Your task to perform on an android device: turn vacation reply on in the gmail app Image 0: 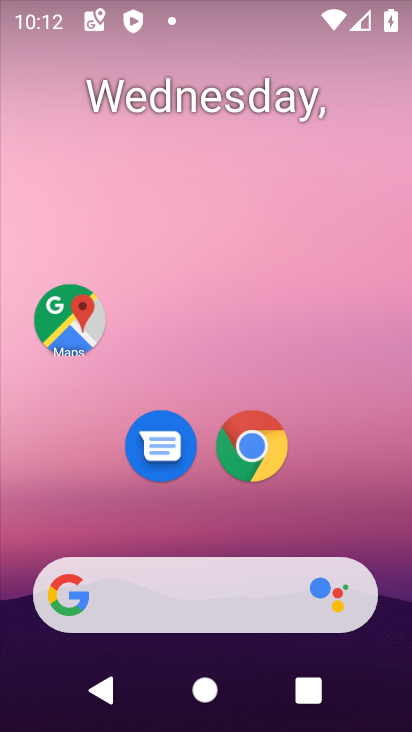
Step 0: drag from (262, 524) to (266, 0)
Your task to perform on an android device: turn vacation reply on in the gmail app Image 1: 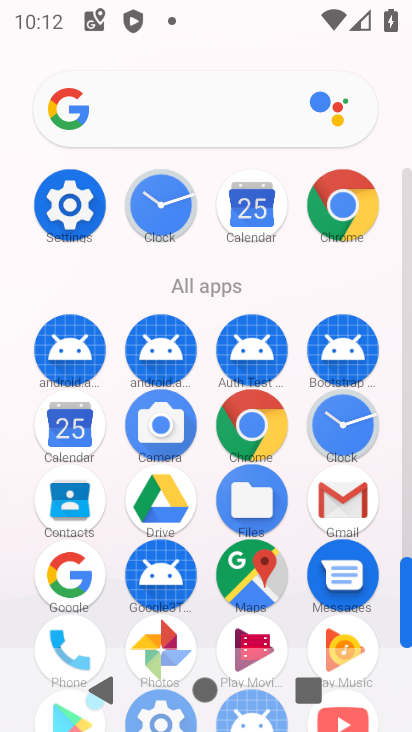
Step 1: click (340, 495)
Your task to perform on an android device: turn vacation reply on in the gmail app Image 2: 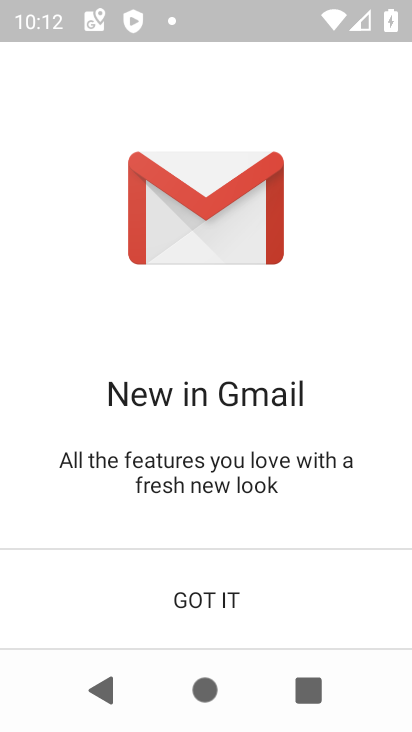
Step 2: click (172, 589)
Your task to perform on an android device: turn vacation reply on in the gmail app Image 3: 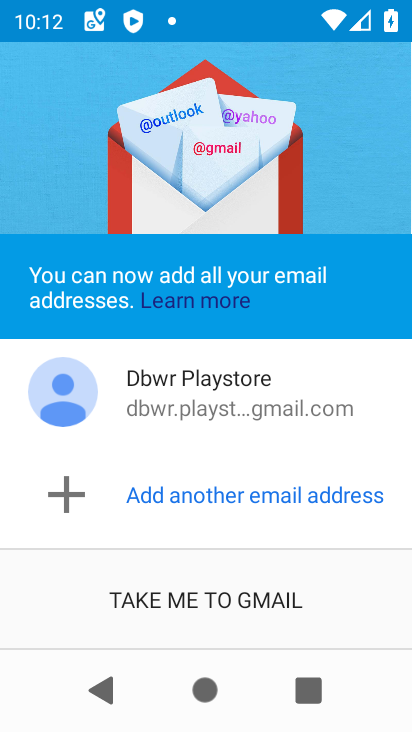
Step 3: click (182, 600)
Your task to perform on an android device: turn vacation reply on in the gmail app Image 4: 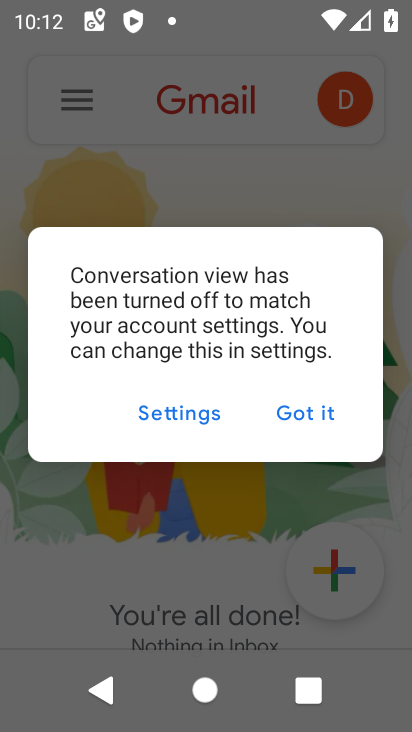
Step 4: click (301, 411)
Your task to perform on an android device: turn vacation reply on in the gmail app Image 5: 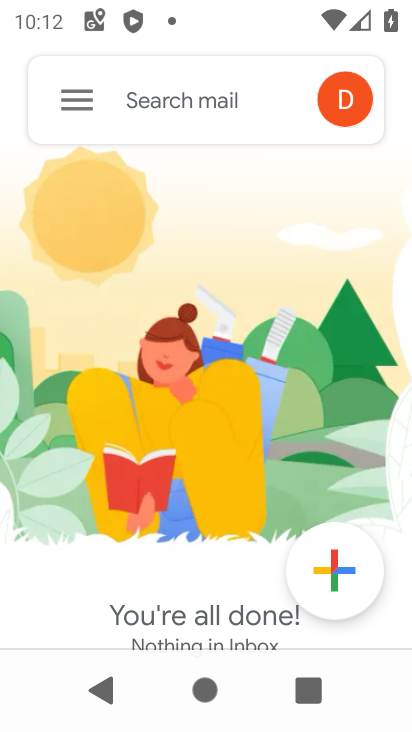
Step 5: click (65, 114)
Your task to perform on an android device: turn vacation reply on in the gmail app Image 6: 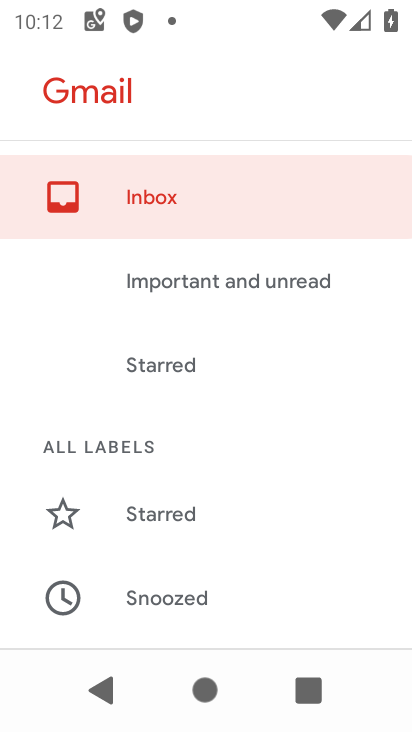
Step 6: drag from (214, 619) to (302, 288)
Your task to perform on an android device: turn vacation reply on in the gmail app Image 7: 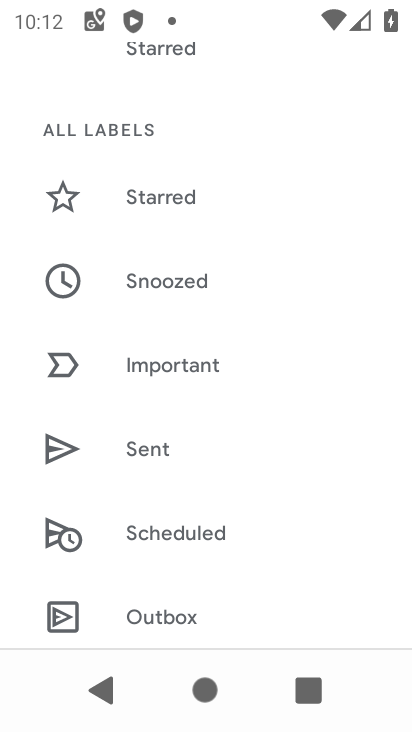
Step 7: drag from (202, 542) to (249, 300)
Your task to perform on an android device: turn vacation reply on in the gmail app Image 8: 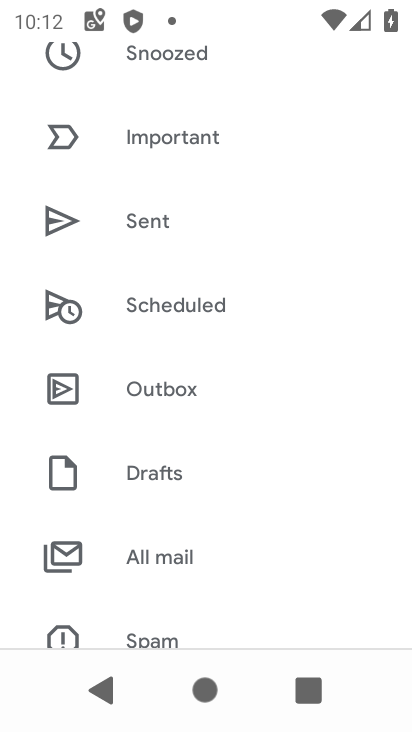
Step 8: drag from (211, 599) to (236, 203)
Your task to perform on an android device: turn vacation reply on in the gmail app Image 9: 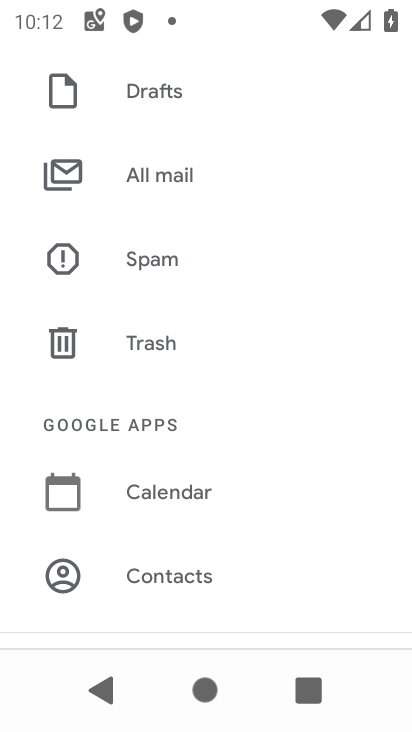
Step 9: drag from (180, 572) to (195, 169)
Your task to perform on an android device: turn vacation reply on in the gmail app Image 10: 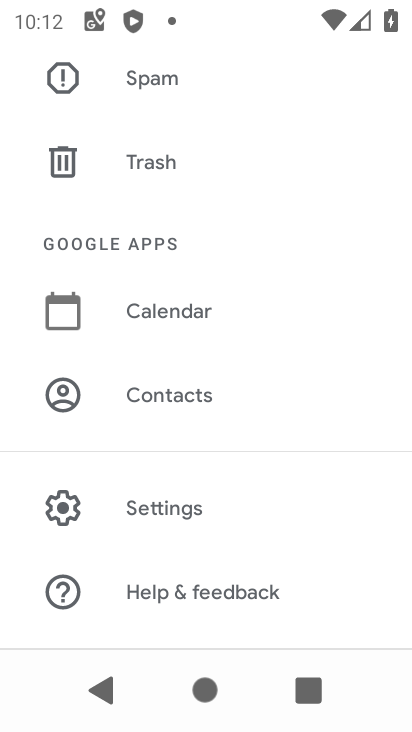
Step 10: click (160, 500)
Your task to perform on an android device: turn vacation reply on in the gmail app Image 11: 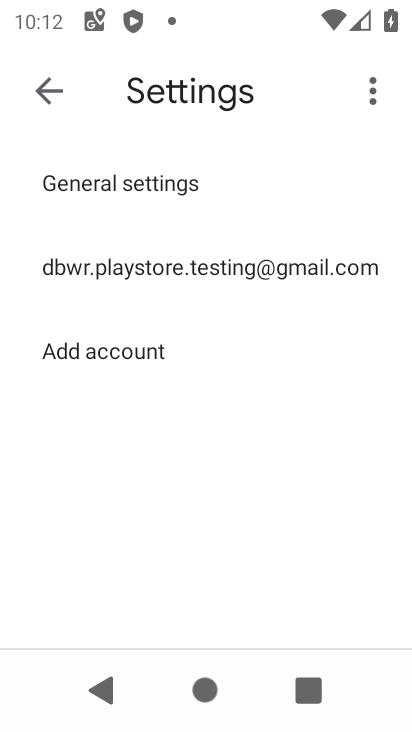
Step 11: click (196, 263)
Your task to perform on an android device: turn vacation reply on in the gmail app Image 12: 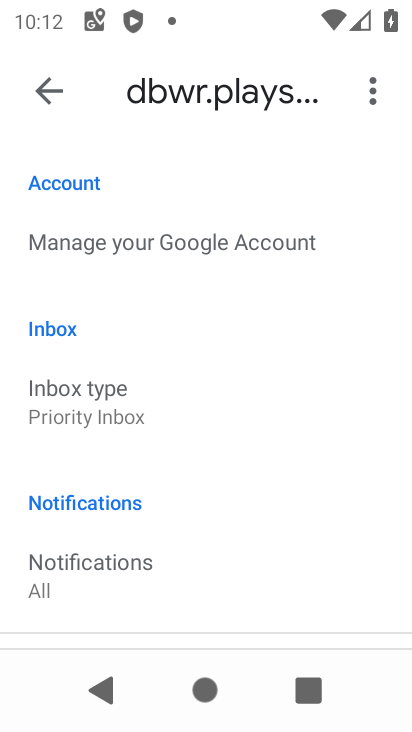
Step 12: drag from (163, 547) to (194, 207)
Your task to perform on an android device: turn vacation reply on in the gmail app Image 13: 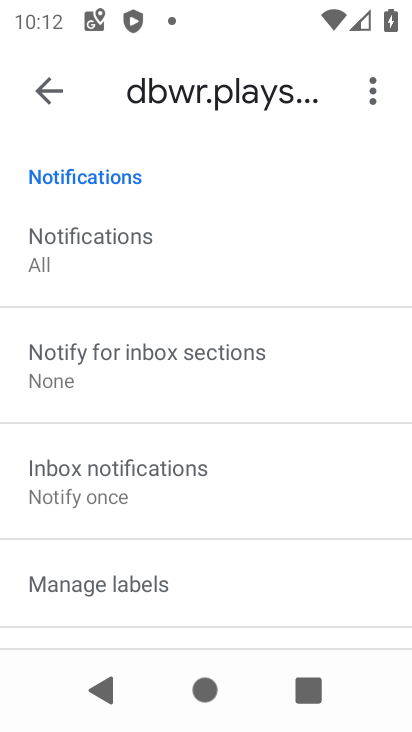
Step 13: drag from (273, 589) to (320, 201)
Your task to perform on an android device: turn vacation reply on in the gmail app Image 14: 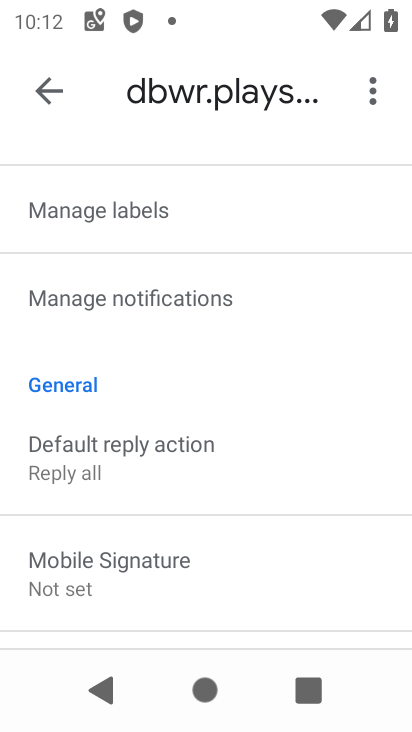
Step 14: drag from (233, 579) to (224, 211)
Your task to perform on an android device: turn vacation reply on in the gmail app Image 15: 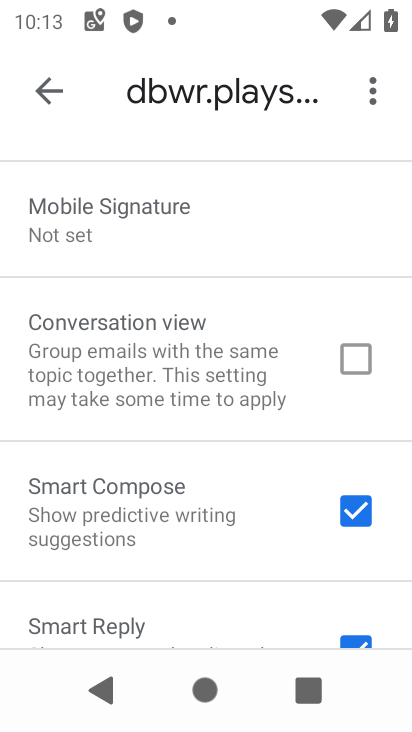
Step 15: drag from (254, 582) to (343, 146)
Your task to perform on an android device: turn vacation reply on in the gmail app Image 16: 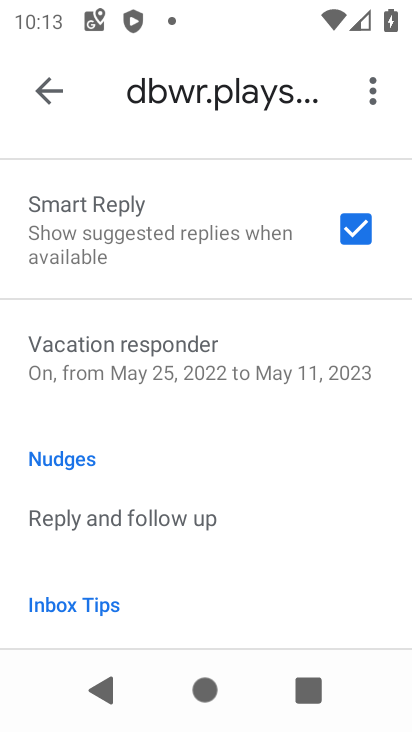
Step 16: click (146, 377)
Your task to perform on an android device: turn vacation reply on in the gmail app Image 17: 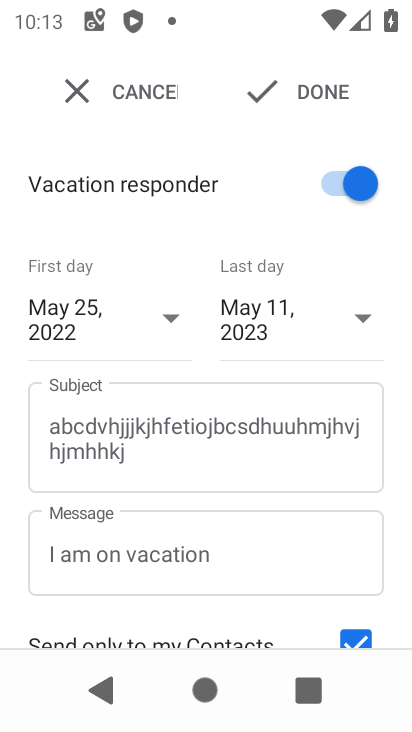
Step 17: task complete